Your task to perform on an android device: turn off smart reply in the gmail app Image 0: 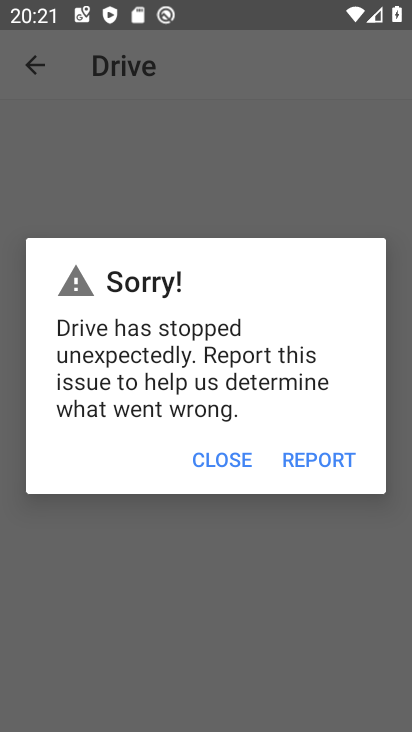
Step 0: press home button
Your task to perform on an android device: turn off smart reply in the gmail app Image 1: 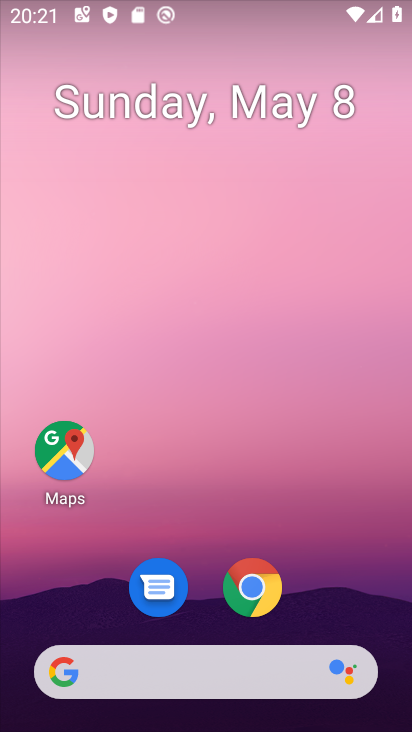
Step 1: drag from (197, 536) to (202, 72)
Your task to perform on an android device: turn off smart reply in the gmail app Image 2: 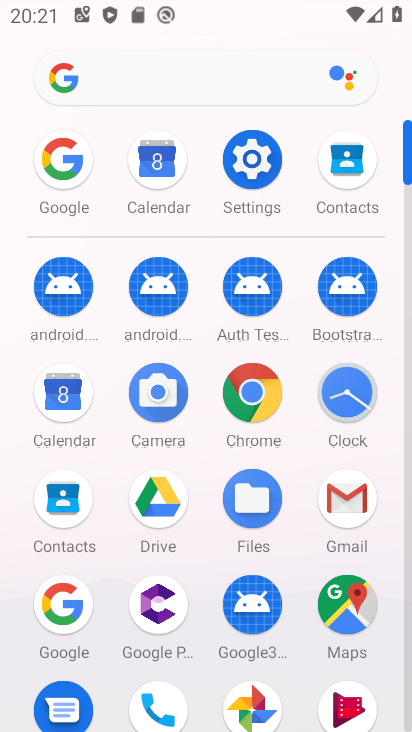
Step 2: click (345, 496)
Your task to perform on an android device: turn off smart reply in the gmail app Image 3: 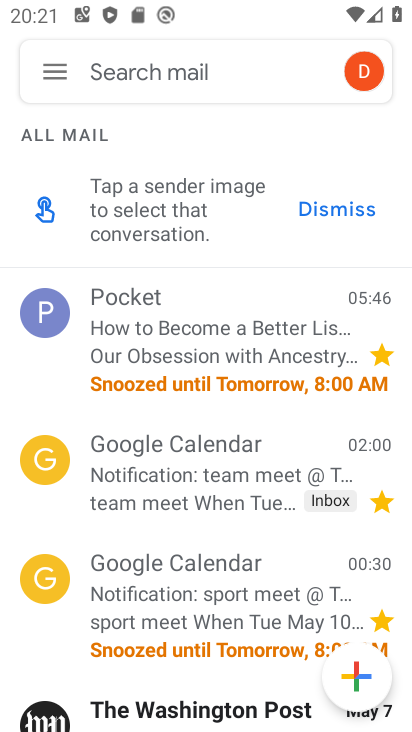
Step 3: click (55, 74)
Your task to perform on an android device: turn off smart reply in the gmail app Image 4: 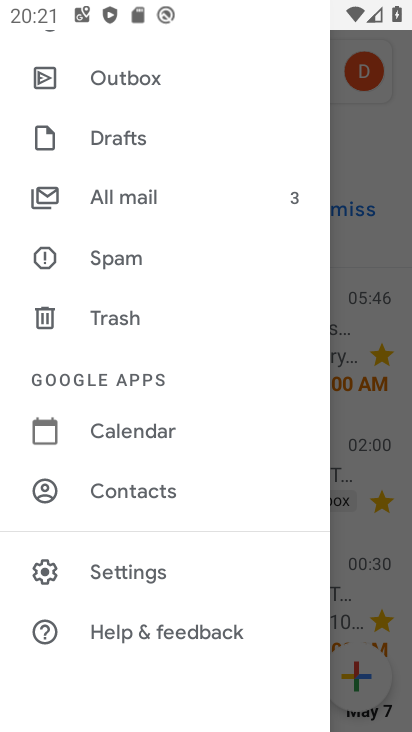
Step 4: click (143, 579)
Your task to perform on an android device: turn off smart reply in the gmail app Image 5: 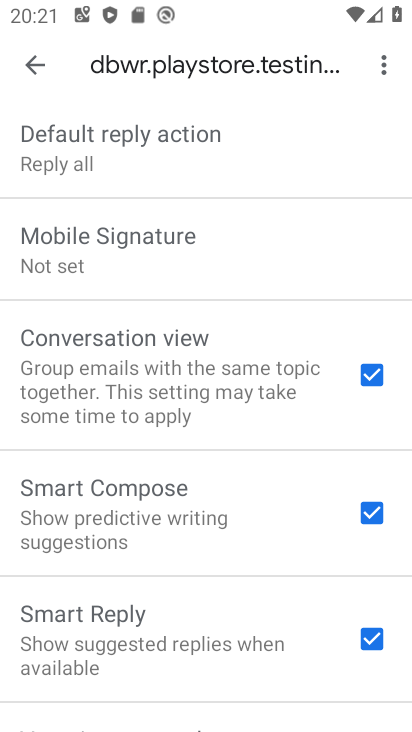
Step 5: click (371, 643)
Your task to perform on an android device: turn off smart reply in the gmail app Image 6: 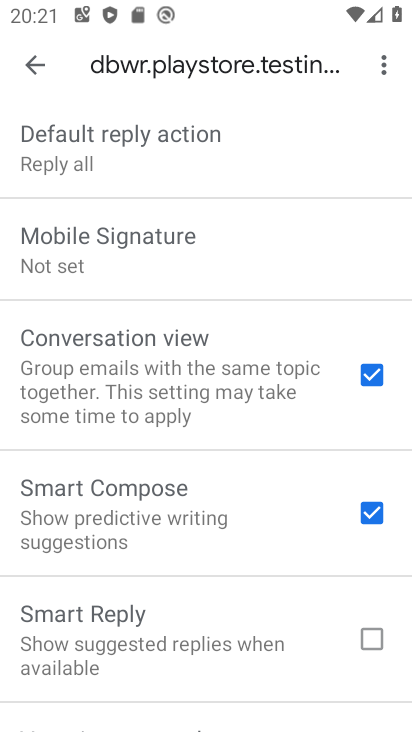
Step 6: task complete